Your task to perform on an android device: open a new tab in the chrome app Image 0: 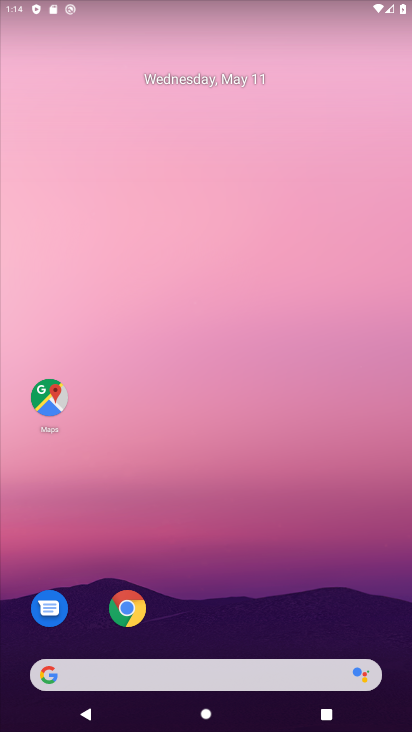
Step 0: click (127, 614)
Your task to perform on an android device: open a new tab in the chrome app Image 1: 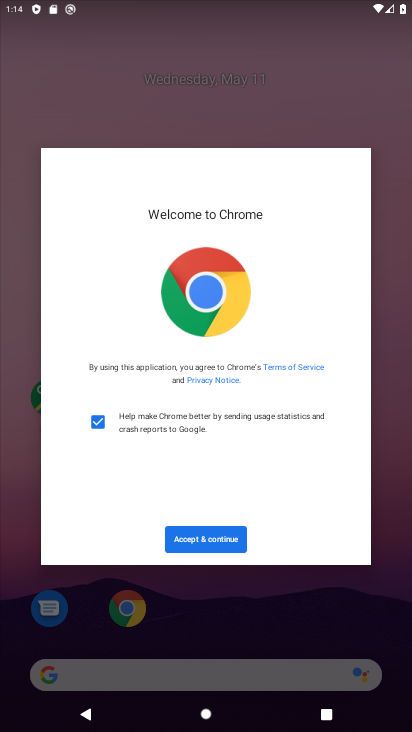
Step 1: click (183, 548)
Your task to perform on an android device: open a new tab in the chrome app Image 2: 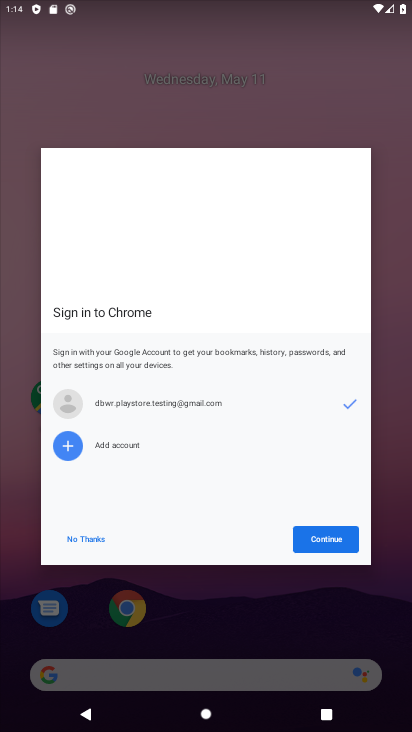
Step 2: click (328, 531)
Your task to perform on an android device: open a new tab in the chrome app Image 3: 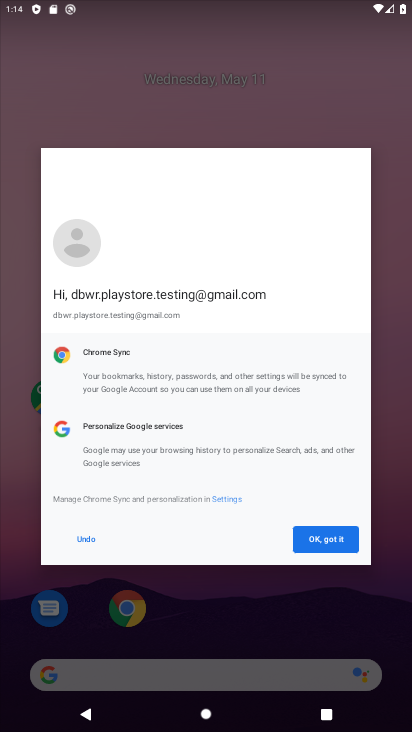
Step 3: click (334, 541)
Your task to perform on an android device: open a new tab in the chrome app Image 4: 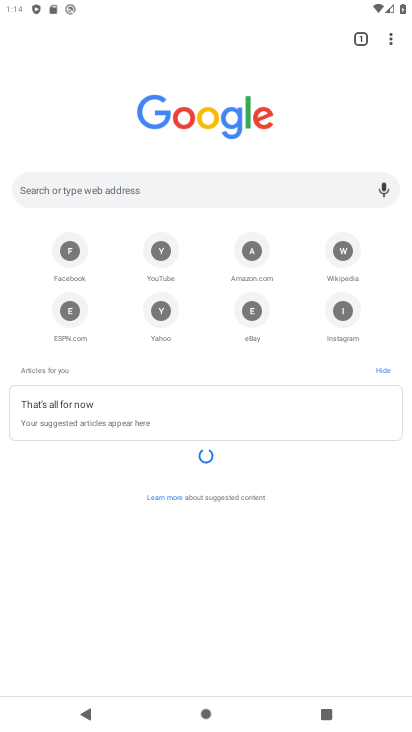
Step 4: click (358, 36)
Your task to perform on an android device: open a new tab in the chrome app Image 5: 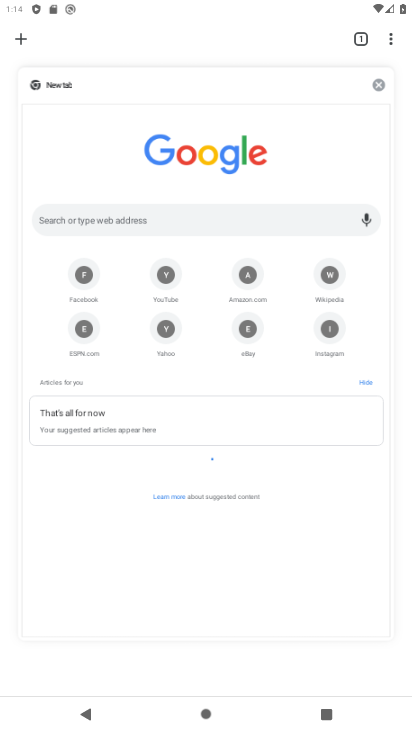
Step 5: click (26, 36)
Your task to perform on an android device: open a new tab in the chrome app Image 6: 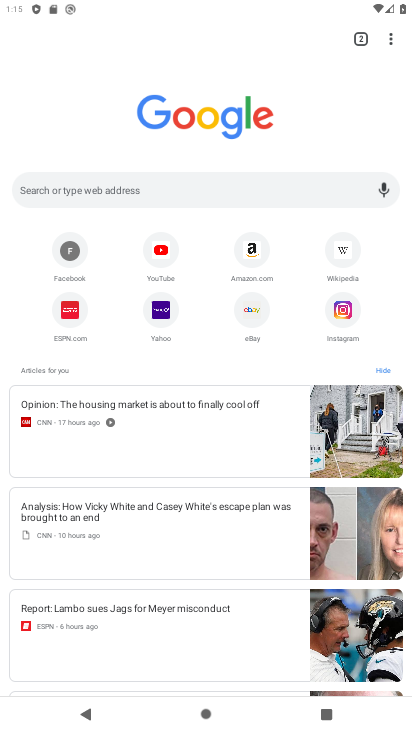
Step 6: task complete